Your task to perform on an android device: Open calendar and show me the third week of next month Image 0: 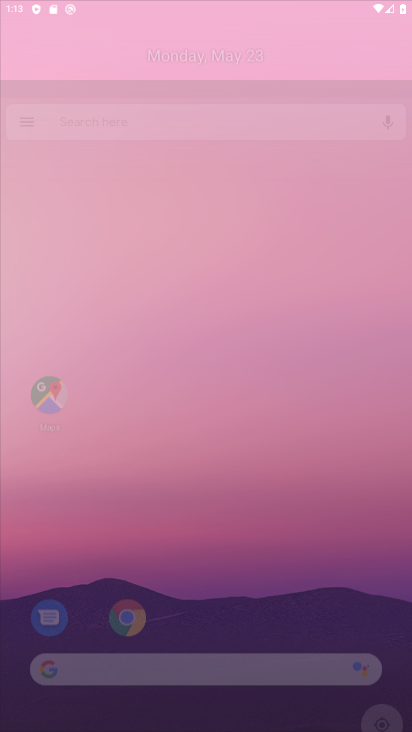
Step 0: drag from (253, 516) to (232, 8)
Your task to perform on an android device: Open calendar and show me the third week of next month Image 1: 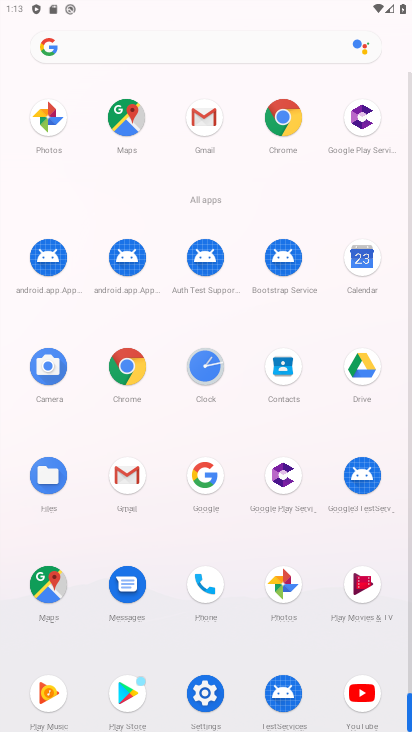
Step 1: drag from (7, 538) to (12, 165)
Your task to perform on an android device: Open calendar and show me the third week of next month Image 2: 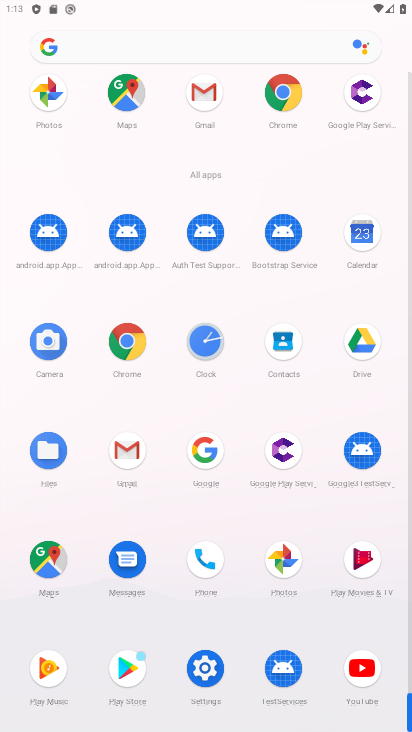
Step 2: click (366, 227)
Your task to perform on an android device: Open calendar and show me the third week of next month Image 3: 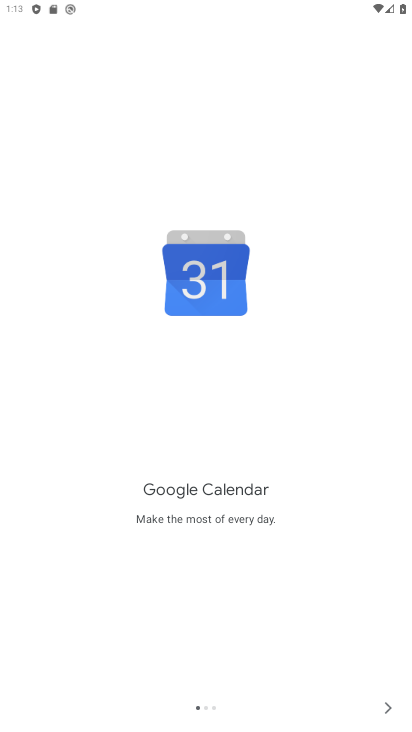
Step 3: click (377, 706)
Your task to perform on an android device: Open calendar and show me the third week of next month Image 4: 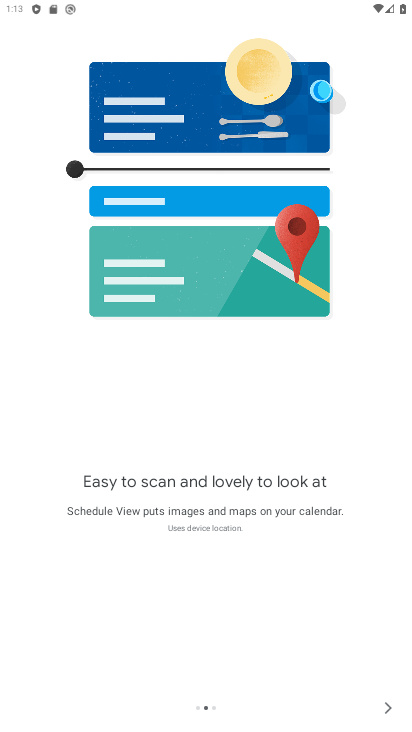
Step 4: click (381, 705)
Your task to perform on an android device: Open calendar and show me the third week of next month Image 5: 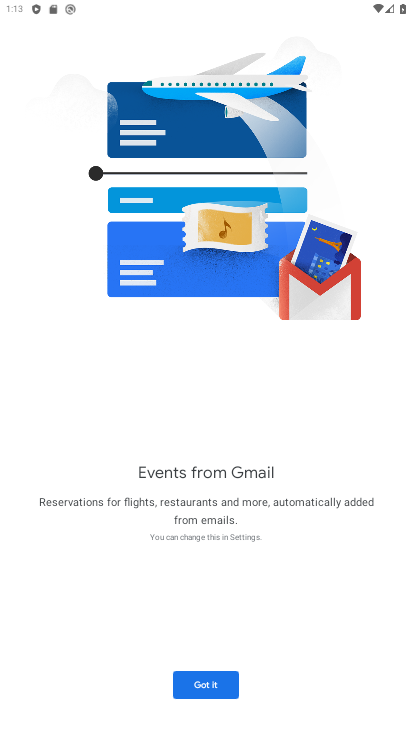
Step 5: click (216, 684)
Your task to perform on an android device: Open calendar and show me the third week of next month Image 6: 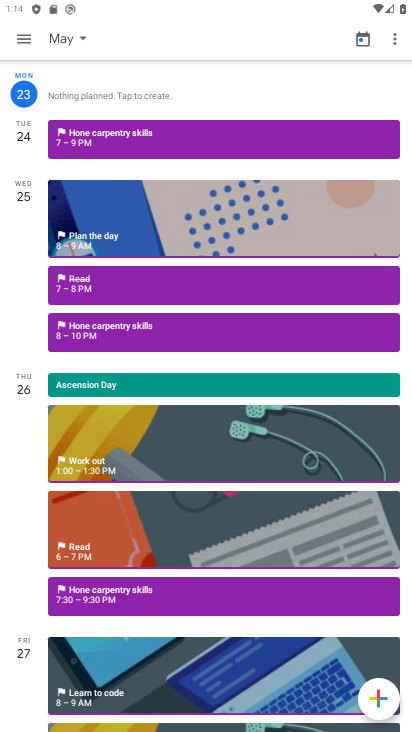
Step 6: click (67, 41)
Your task to perform on an android device: Open calendar and show me the third week of next month Image 7: 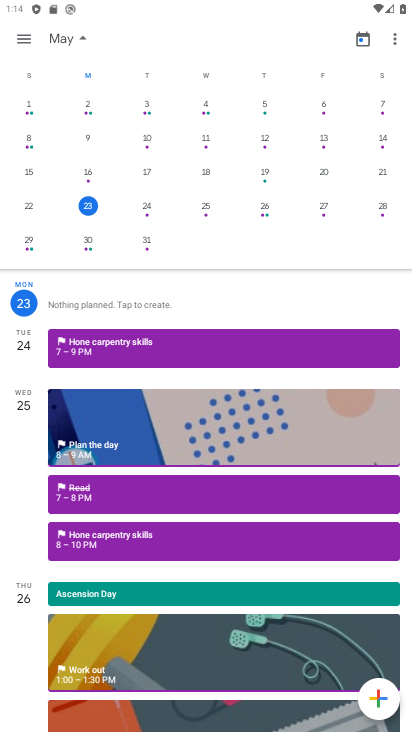
Step 7: drag from (379, 147) to (7, 121)
Your task to perform on an android device: Open calendar and show me the third week of next month Image 8: 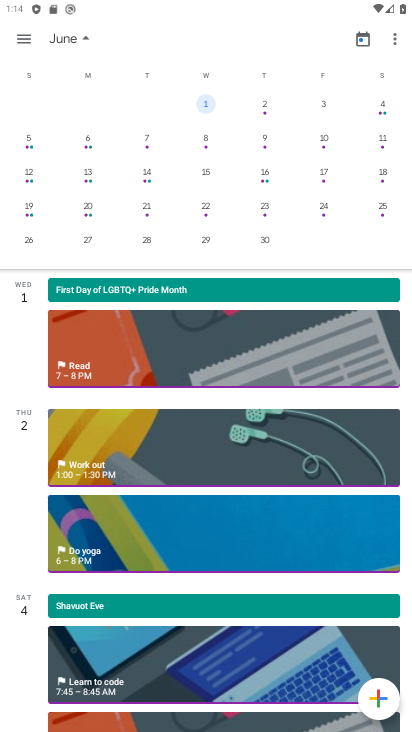
Step 8: click (28, 177)
Your task to perform on an android device: Open calendar and show me the third week of next month Image 9: 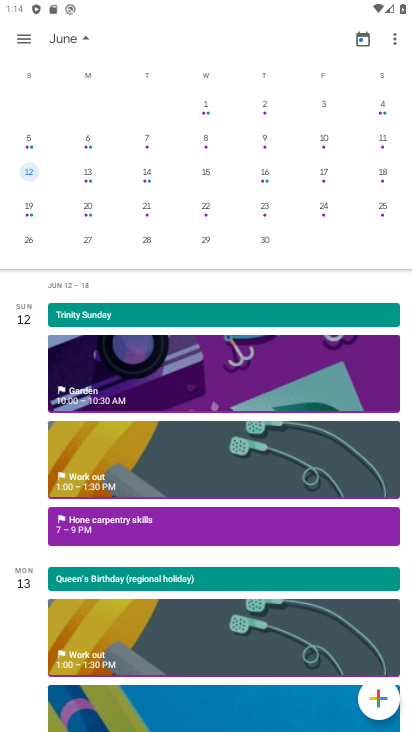
Step 9: click (25, 46)
Your task to perform on an android device: Open calendar and show me the third week of next month Image 10: 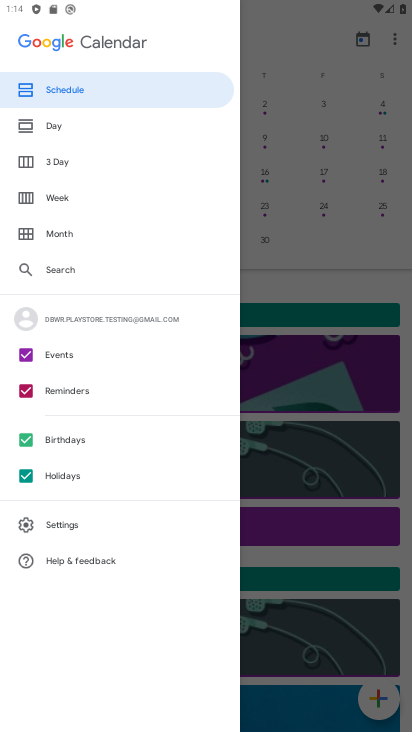
Step 10: click (73, 199)
Your task to perform on an android device: Open calendar and show me the third week of next month Image 11: 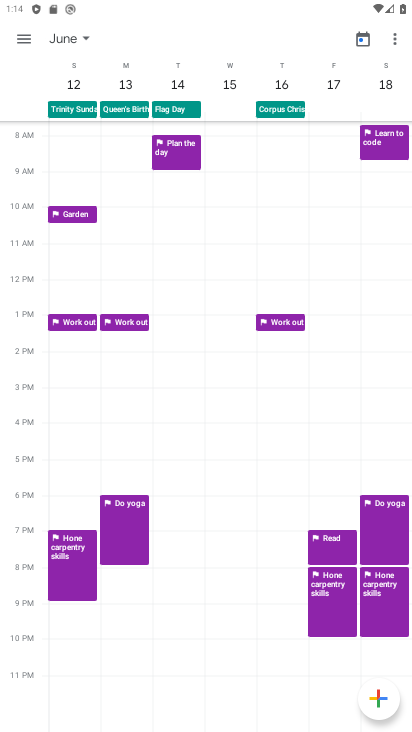
Step 11: task complete